Your task to perform on an android device: Open Wikipedia Image 0: 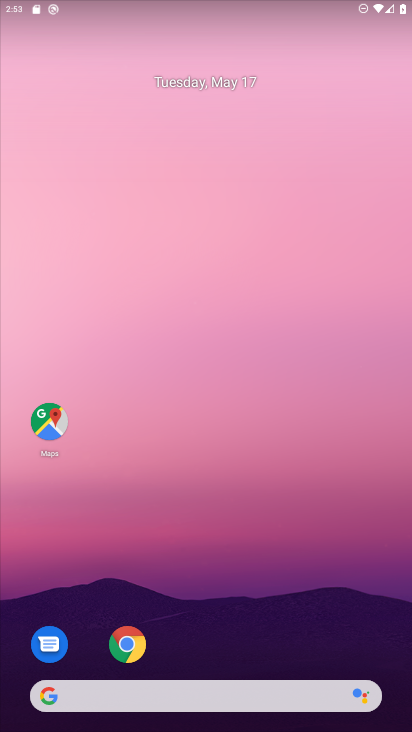
Step 0: click (131, 641)
Your task to perform on an android device: Open Wikipedia Image 1: 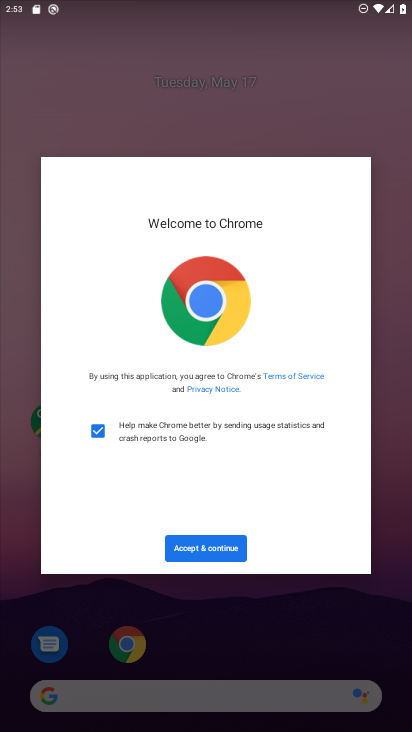
Step 1: click (206, 544)
Your task to perform on an android device: Open Wikipedia Image 2: 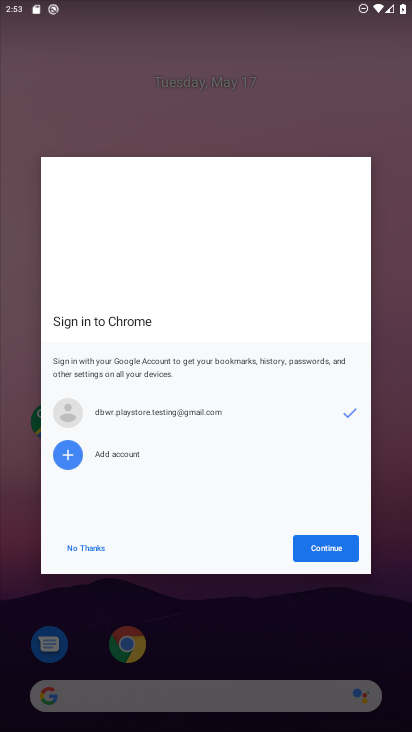
Step 2: click (306, 556)
Your task to perform on an android device: Open Wikipedia Image 3: 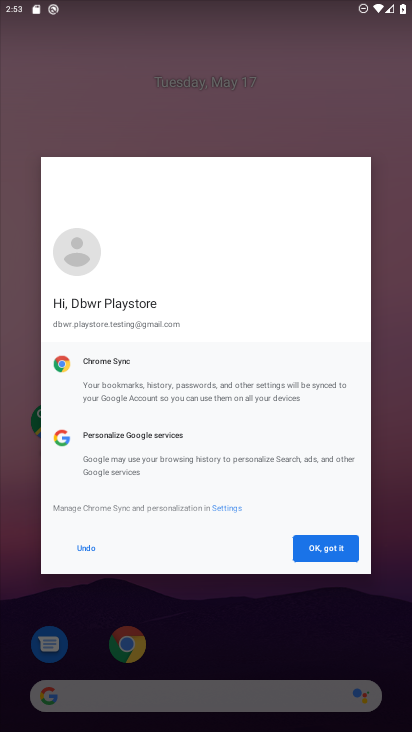
Step 3: click (306, 556)
Your task to perform on an android device: Open Wikipedia Image 4: 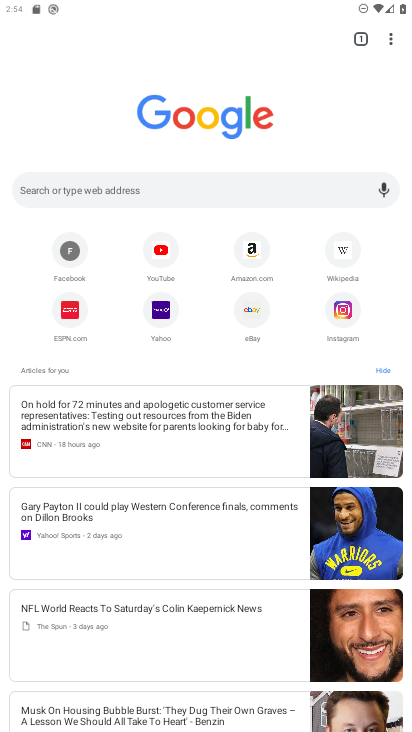
Step 4: click (353, 252)
Your task to perform on an android device: Open Wikipedia Image 5: 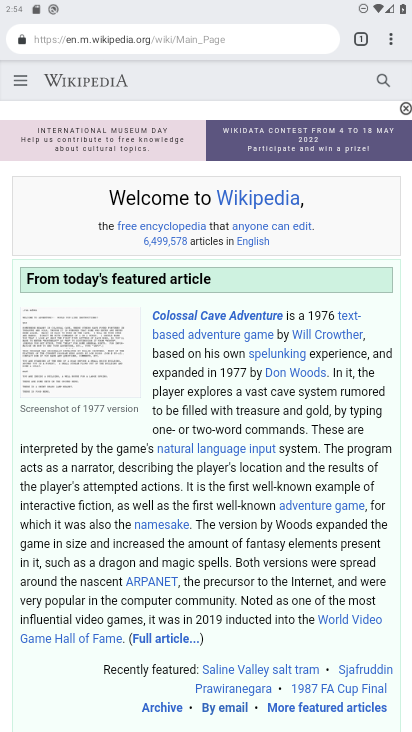
Step 5: task complete